Your task to perform on an android device: open a new tab in the chrome app Image 0: 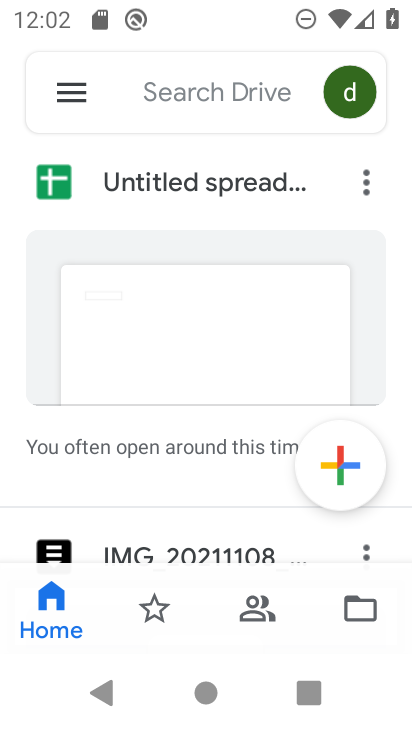
Step 0: press home button
Your task to perform on an android device: open a new tab in the chrome app Image 1: 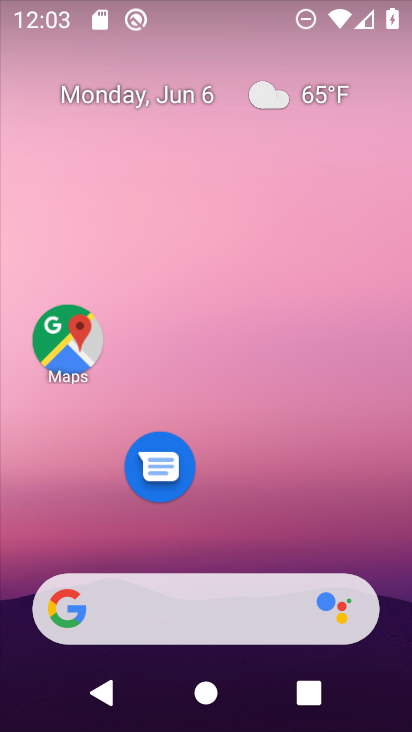
Step 1: drag from (349, 527) to (307, 139)
Your task to perform on an android device: open a new tab in the chrome app Image 2: 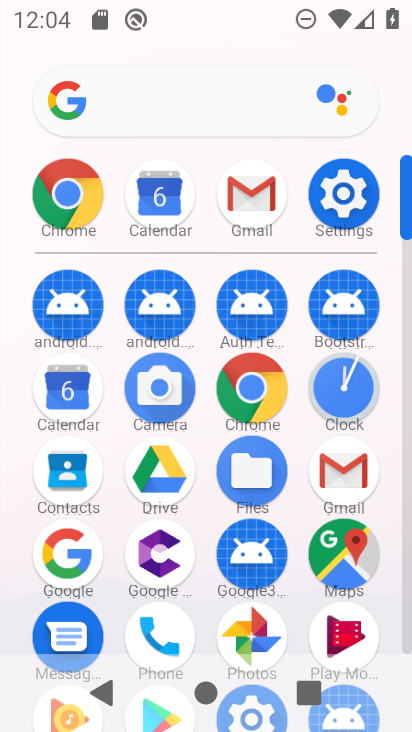
Step 2: click (73, 179)
Your task to perform on an android device: open a new tab in the chrome app Image 3: 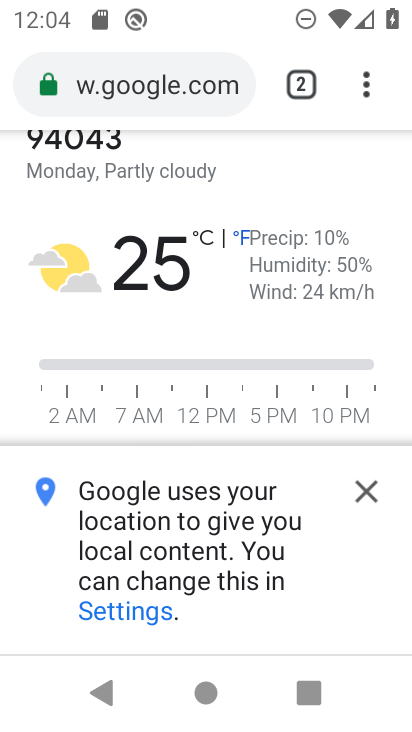
Step 3: click (367, 80)
Your task to perform on an android device: open a new tab in the chrome app Image 4: 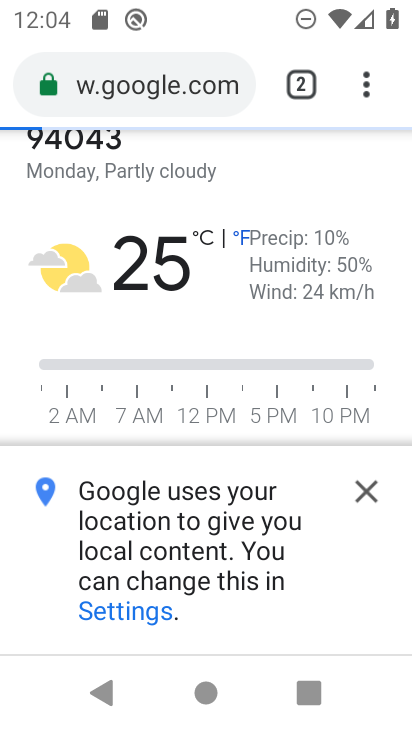
Step 4: task complete